Your task to perform on an android device: open app "Facebook" (install if not already installed) Image 0: 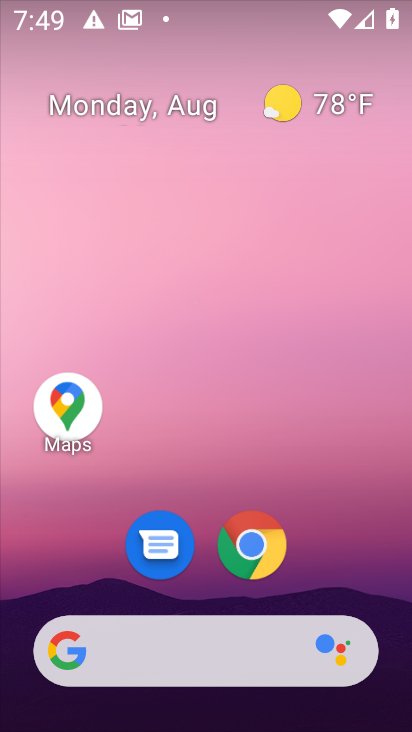
Step 0: press home button
Your task to perform on an android device: open app "Facebook" (install if not already installed) Image 1: 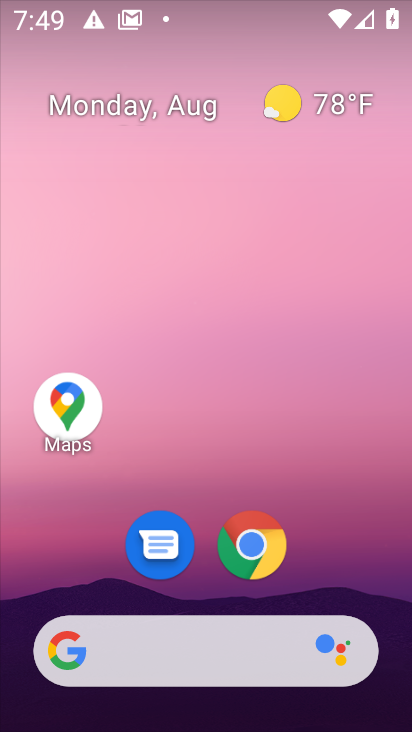
Step 1: drag from (354, 579) to (381, 111)
Your task to perform on an android device: open app "Facebook" (install if not already installed) Image 2: 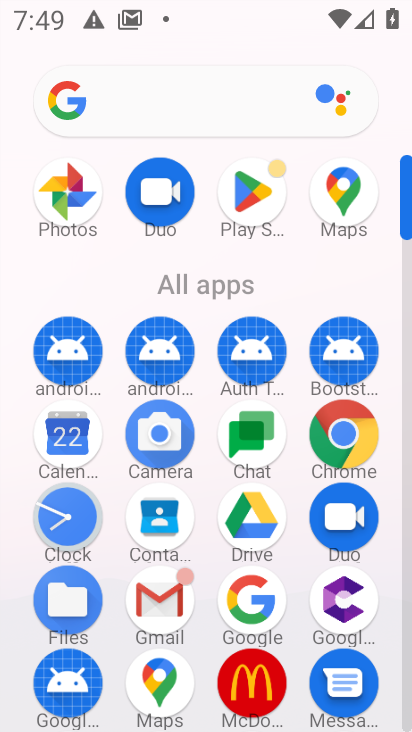
Step 2: click (256, 198)
Your task to perform on an android device: open app "Facebook" (install if not already installed) Image 3: 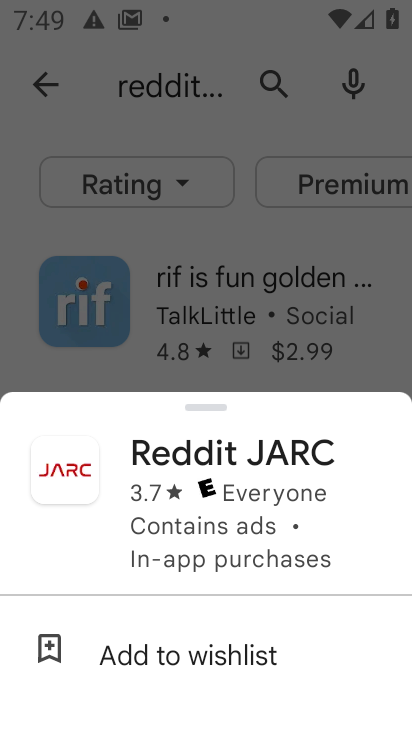
Step 3: press back button
Your task to perform on an android device: open app "Facebook" (install if not already installed) Image 4: 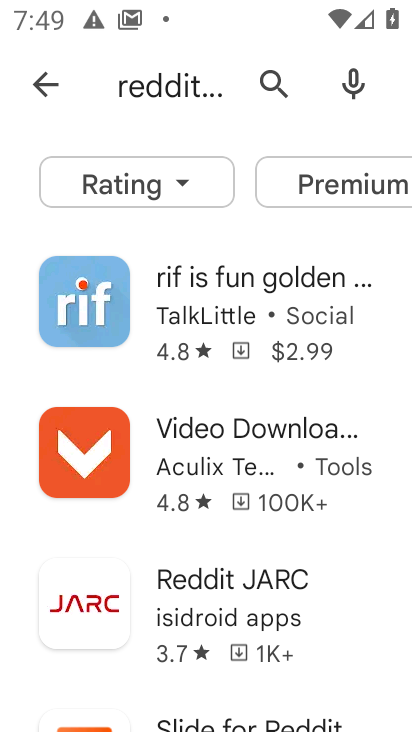
Step 4: press back button
Your task to perform on an android device: open app "Facebook" (install if not already installed) Image 5: 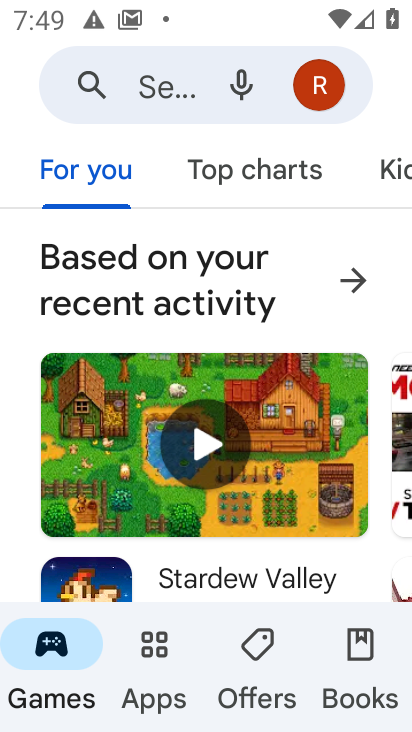
Step 5: click (166, 85)
Your task to perform on an android device: open app "Facebook" (install if not already installed) Image 6: 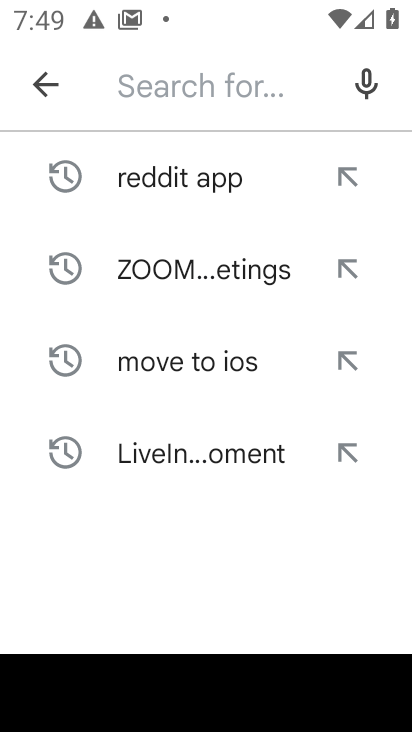
Step 6: type "facebook"
Your task to perform on an android device: open app "Facebook" (install if not already installed) Image 7: 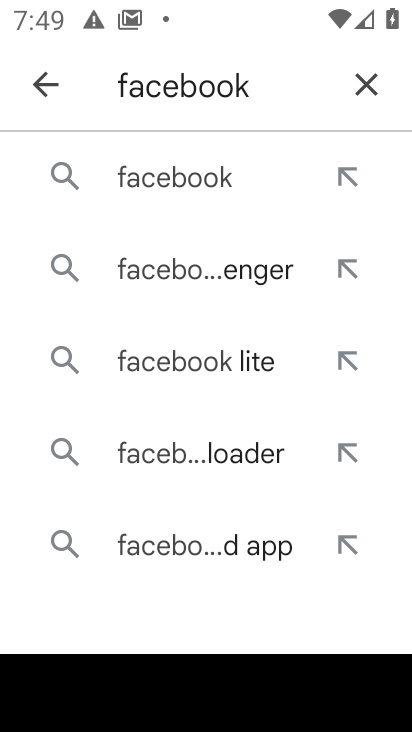
Step 7: click (237, 180)
Your task to perform on an android device: open app "Facebook" (install if not already installed) Image 8: 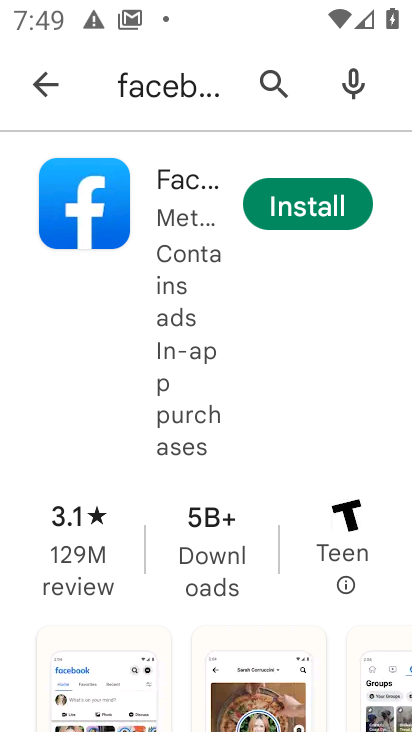
Step 8: click (327, 202)
Your task to perform on an android device: open app "Facebook" (install if not already installed) Image 9: 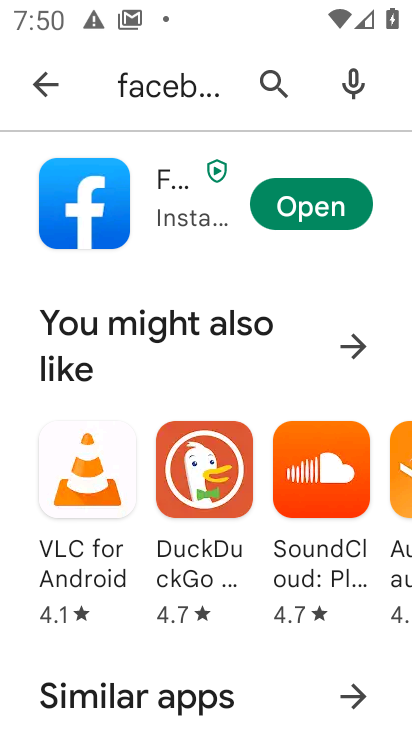
Step 9: click (312, 199)
Your task to perform on an android device: open app "Facebook" (install if not already installed) Image 10: 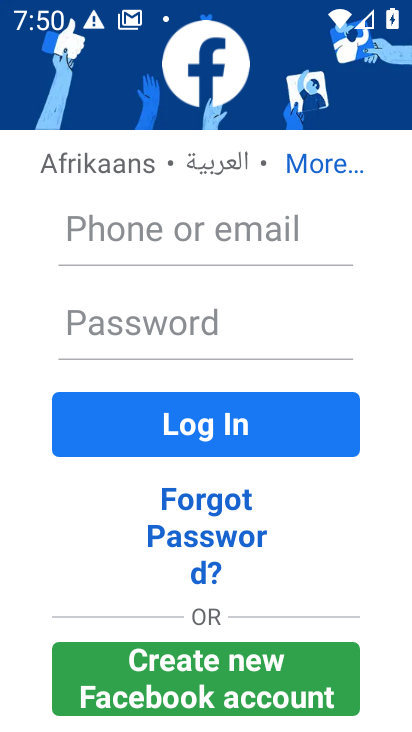
Step 10: task complete